Your task to perform on an android device: set the timer Image 0: 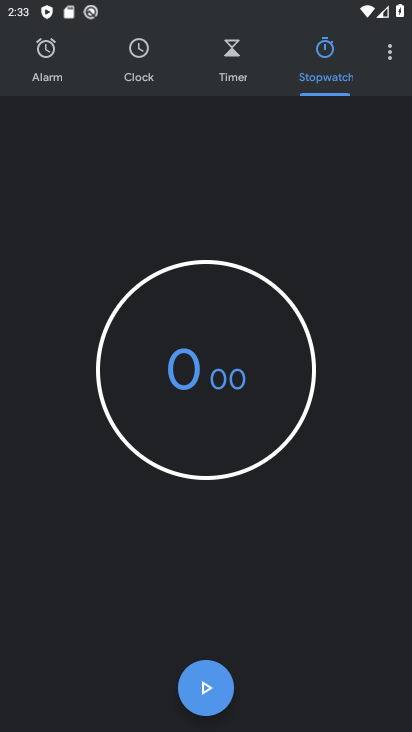
Step 0: click (232, 58)
Your task to perform on an android device: set the timer Image 1: 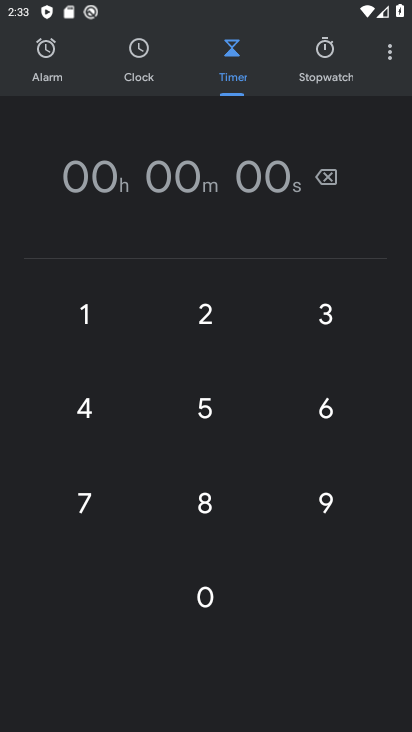
Step 1: click (219, 305)
Your task to perform on an android device: set the timer Image 2: 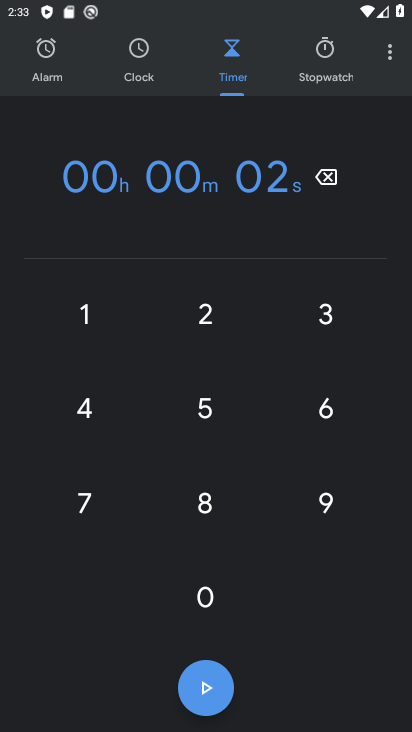
Step 2: click (208, 404)
Your task to perform on an android device: set the timer Image 3: 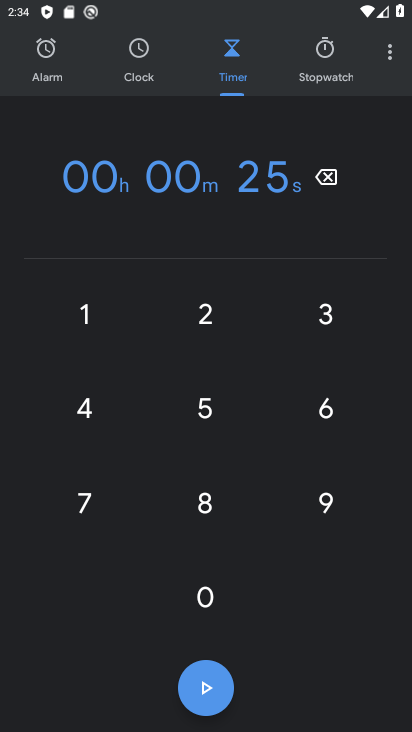
Step 3: click (88, 405)
Your task to perform on an android device: set the timer Image 4: 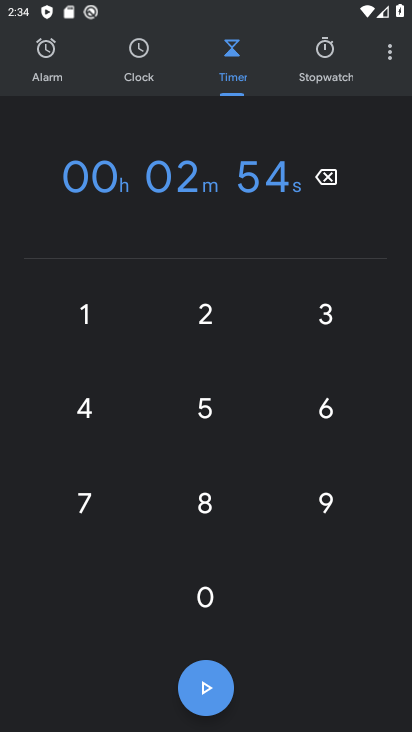
Step 4: click (222, 675)
Your task to perform on an android device: set the timer Image 5: 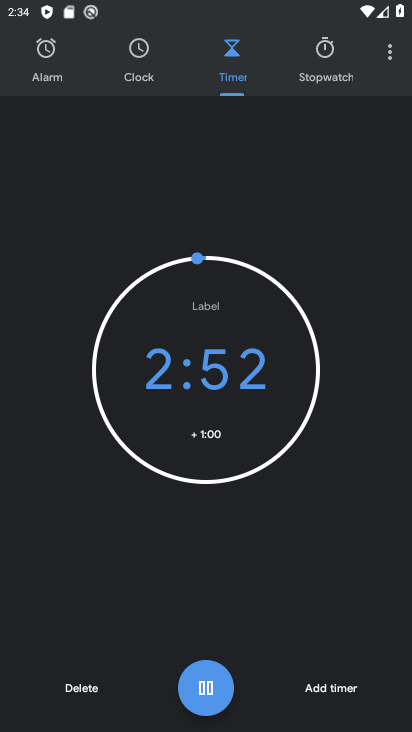
Step 5: task complete